Your task to perform on an android device: change your default location settings in chrome Image 0: 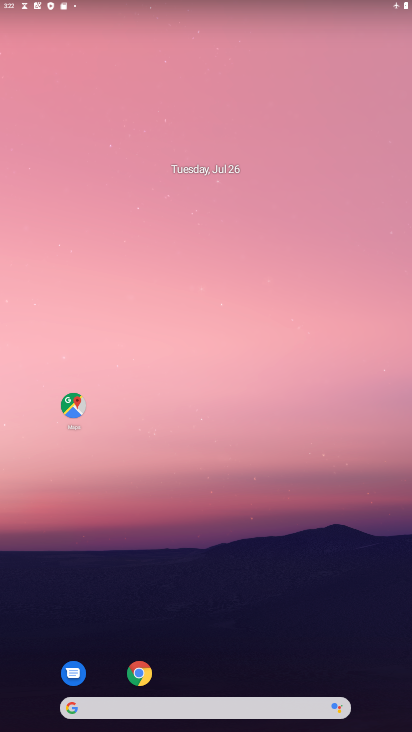
Step 0: click (139, 672)
Your task to perform on an android device: change your default location settings in chrome Image 1: 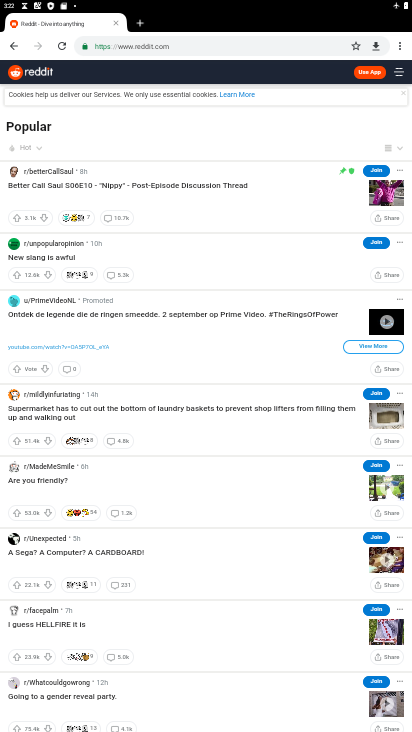
Step 1: click (399, 44)
Your task to perform on an android device: change your default location settings in chrome Image 2: 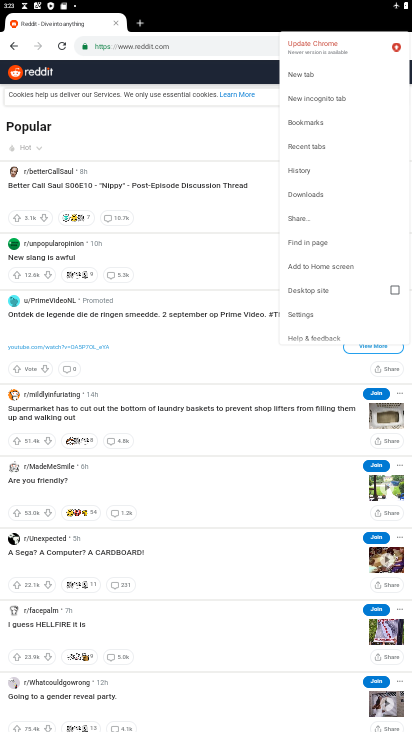
Step 2: click (310, 315)
Your task to perform on an android device: change your default location settings in chrome Image 3: 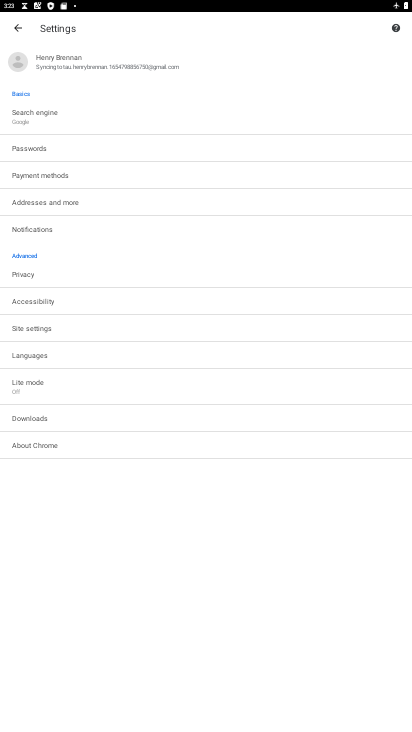
Step 3: click (38, 328)
Your task to perform on an android device: change your default location settings in chrome Image 4: 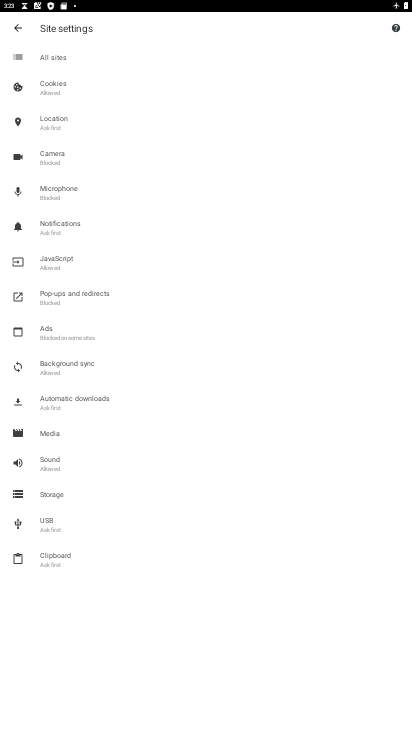
Step 4: click (53, 110)
Your task to perform on an android device: change your default location settings in chrome Image 5: 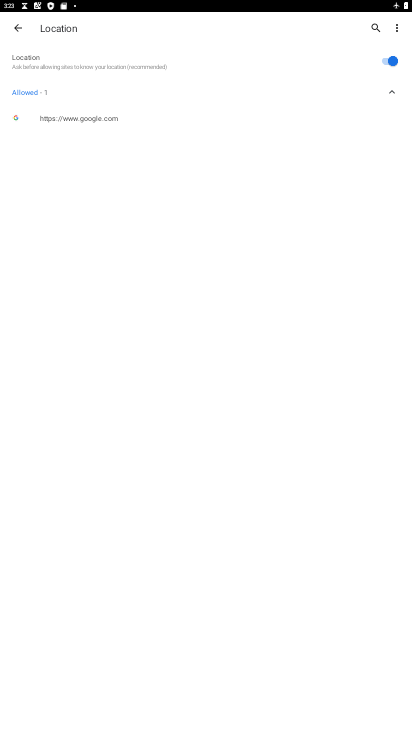
Step 5: click (392, 61)
Your task to perform on an android device: change your default location settings in chrome Image 6: 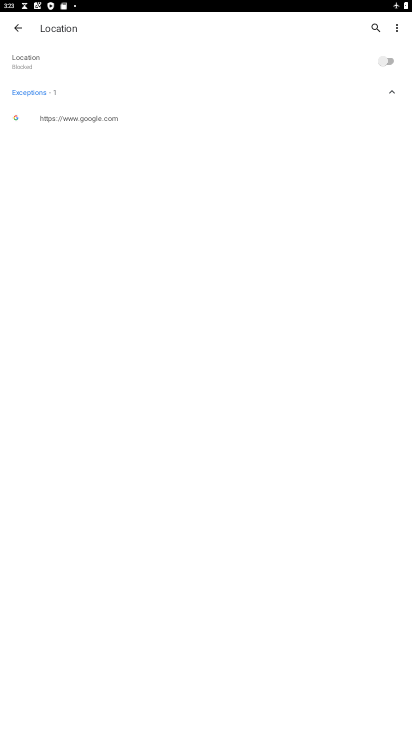
Step 6: task complete